Your task to perform on an android device: add a contact in the contacts app Image 0: 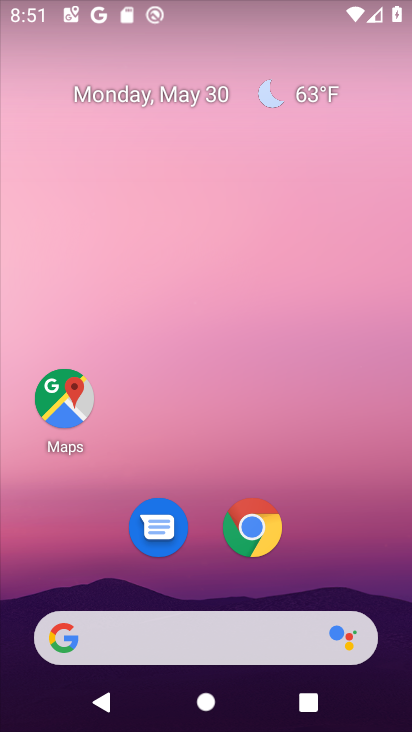
Step 0: drag from (299, 555) to (269, 286)
Your task to perform on an android device: add a contact in the contacts app Image 1: 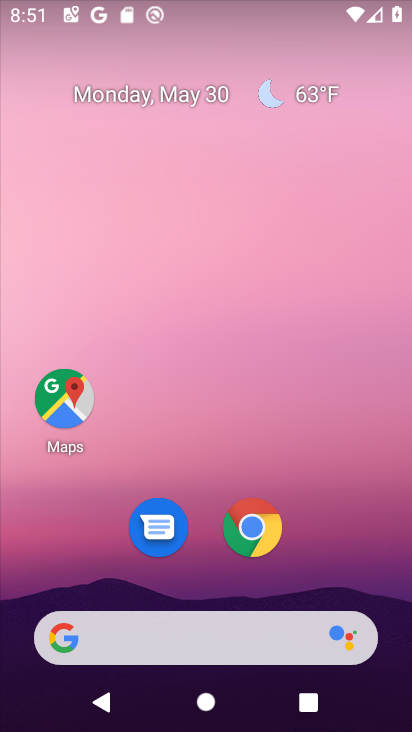
Step 1: drag from (323, 575) to (278, 167)
Your task to perform on an android device: add a contact in the contacts app Image 2: 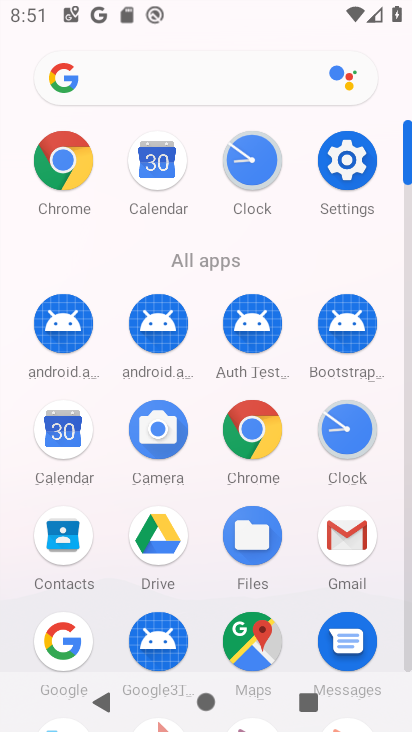
Step 2: drag from (189, 576) to (211, 241)
Your task to perform on an android device: add a contact in the contacts app Image 3: 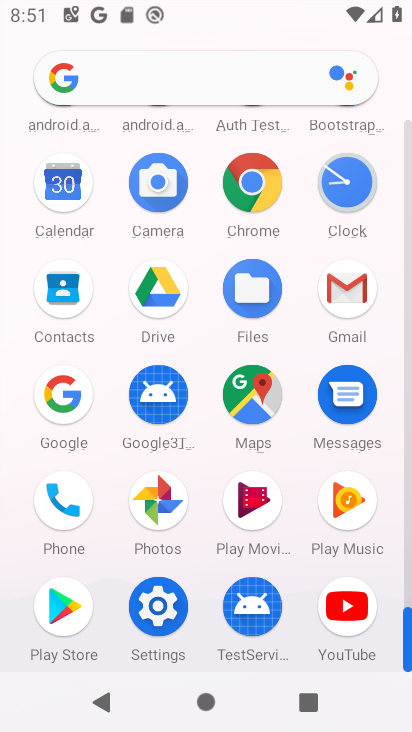
Step 3: click (59, 500)
Your task to perform on an android device: add a contact in the contacts app Image 4: 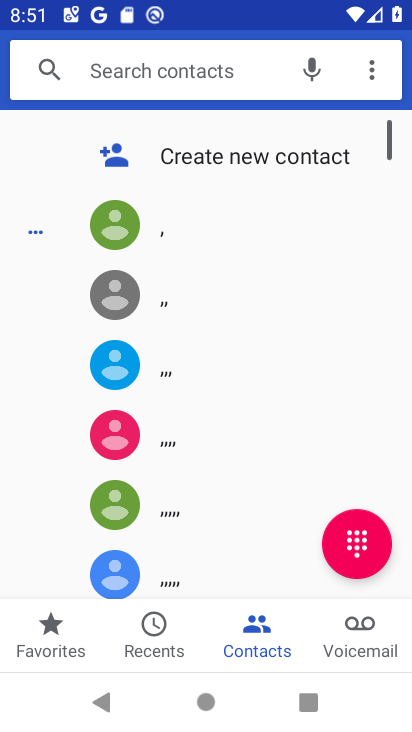
Step 4: click (161, 154)
Your task to perform on an android device: add a contact in the contacts app Image 5: 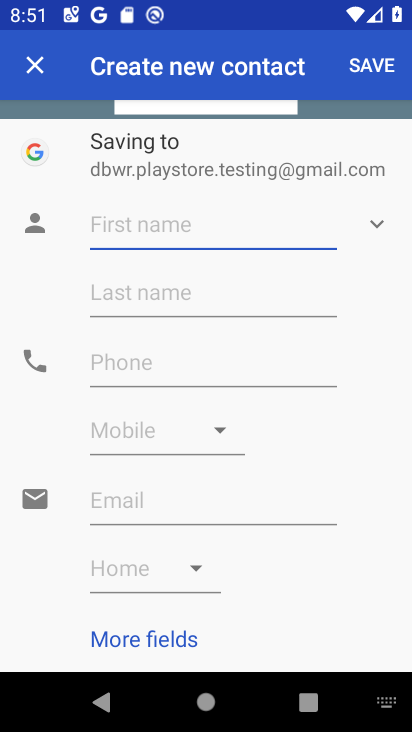
Step 5: click (185, 225)
Your task to perform on an android device: add a contact in the contacts app Image 6: 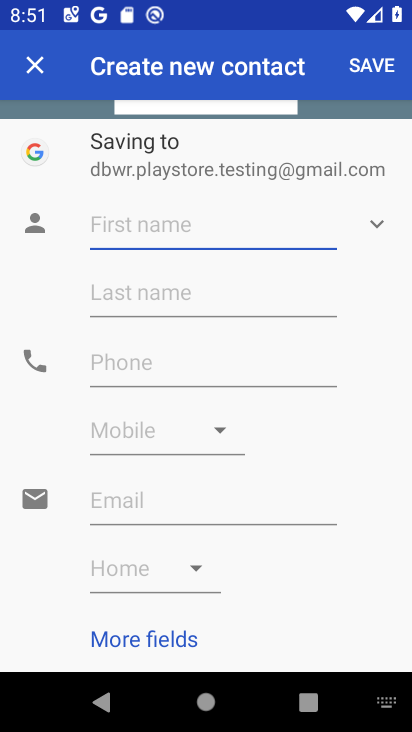
Step 6: type "lalalalalalalal"
Your task to perform on an android device: add a contact in the contacts app Image 7: 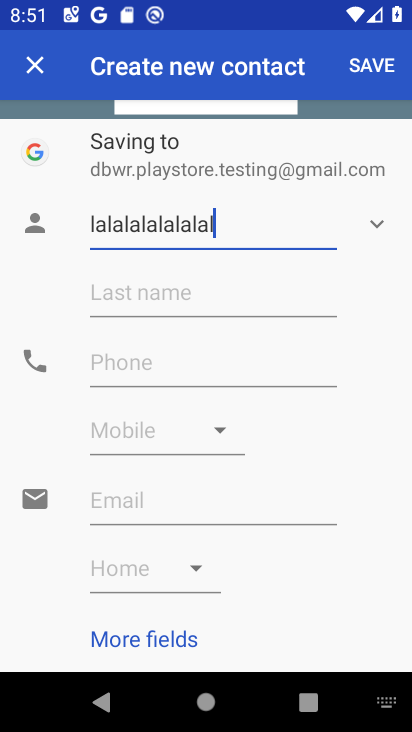
Step 7: click (187, 362)
Your task to perform on an android device: add a contact in the contacts app Image 8: 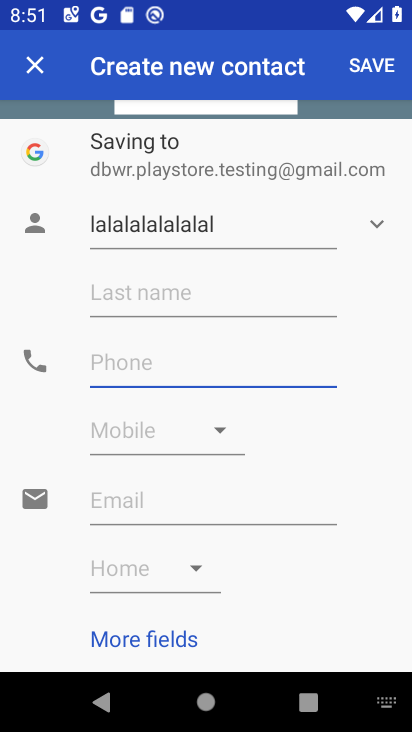
Step 8: type "91919199191919"
Your task to perform on an android device: add a contact in the contacts app Image 9: 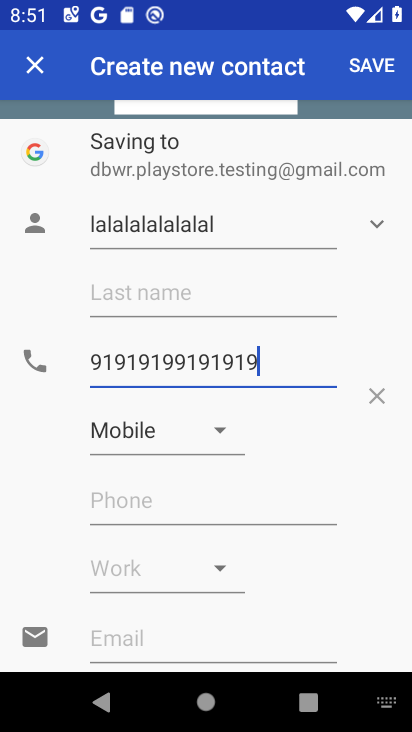
Step 9: click (360, 62)
Your task to perform on an android device: add a contact in the contacts app Image 10: 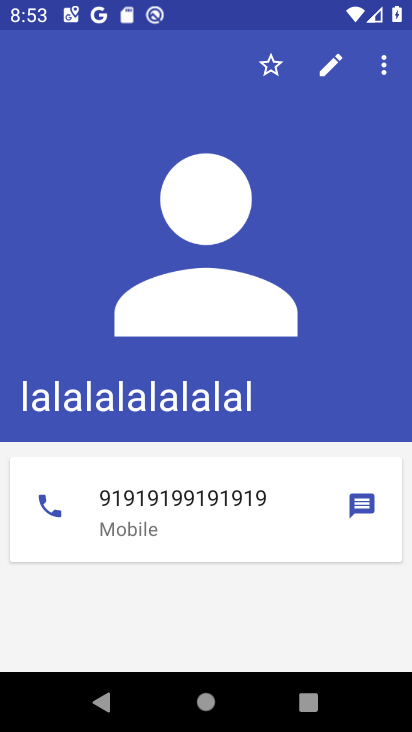
Step 10: task complete